Your task to perform on an android device: change the clock style Image 0: 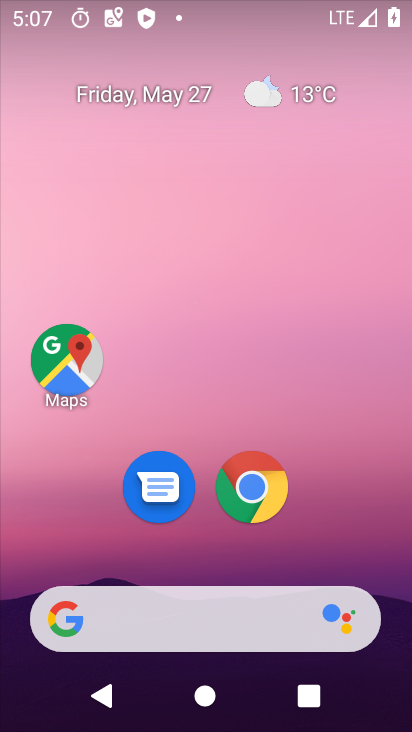
Step 0: drag from (350, 469) to (228, 0)
Your task to perform on an android device: change the clock style Image 1: 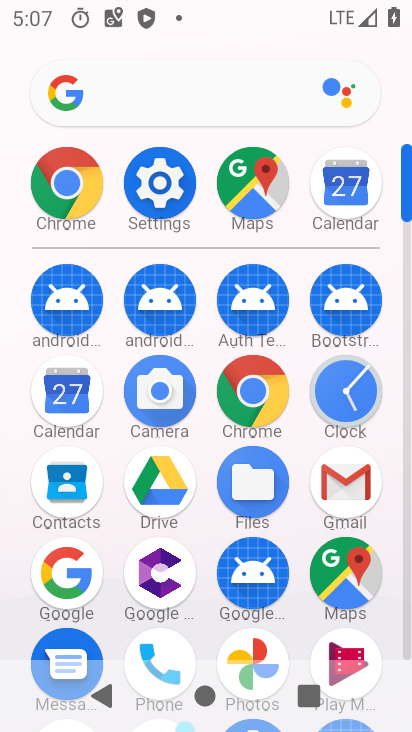
Step 1: click (341, 385)
Your task to perform on an android device: change the clock style Image 2: 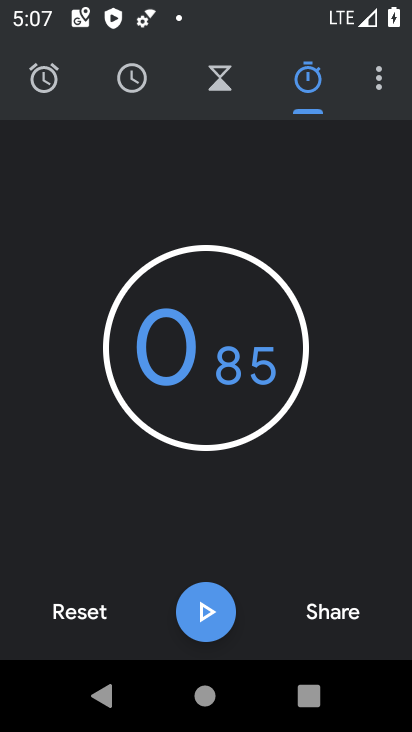
Step 2: click (373, 78)
Your task to perform on an android device: change the clock style Image 3: 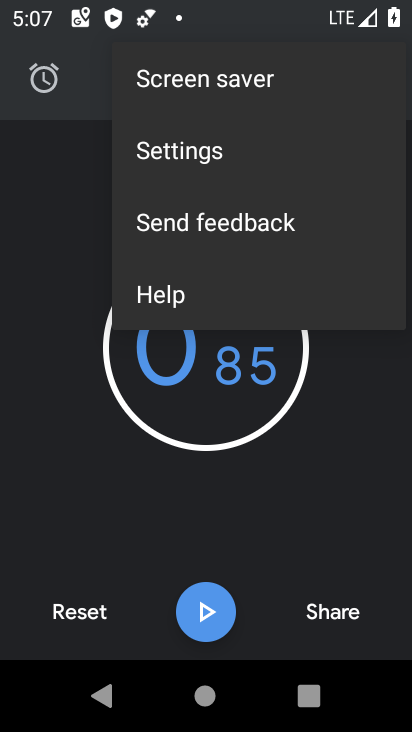
Step 3: click (190, 165)
Your task to perform on an android device: change the clock style Image 4: 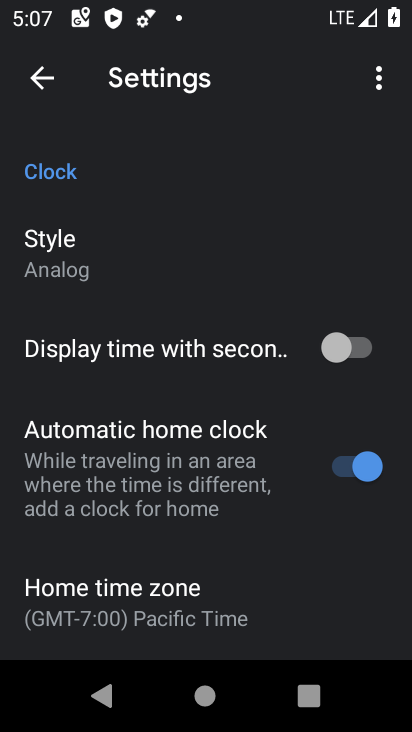
Step 4: click (68, 252)
Your task to perform on an android device: change the clock style Image 5: 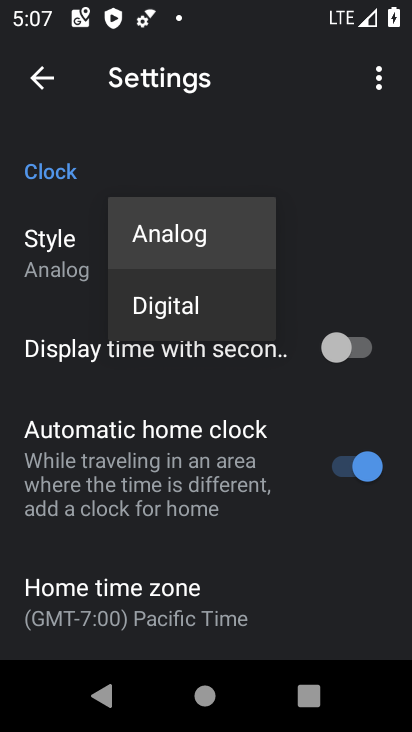
Step 5: click (191, 327)
Your task to perform on an android device: change the clock style Image 6: 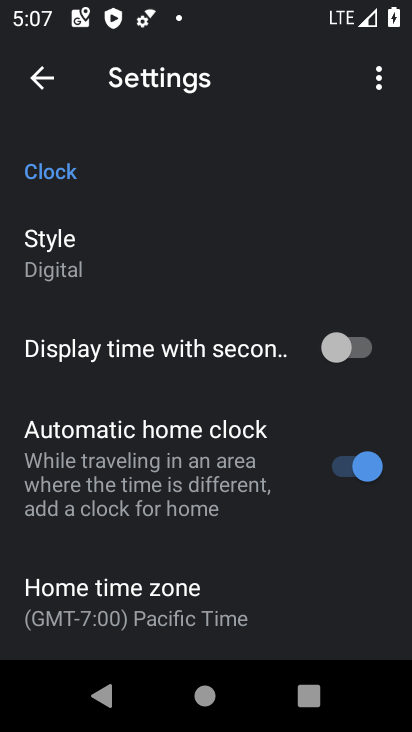
Step 6: task complete